Your task to perform on an android device: Open Google Maps and go to "Timeline" Image 0: 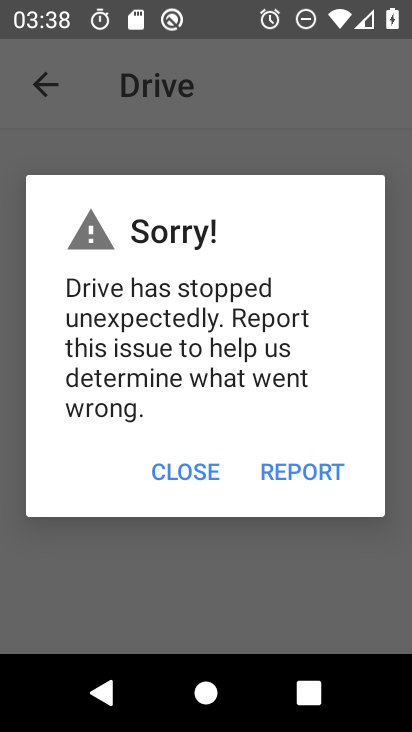
Step 0: press home button
Your task to perform on an android device: Open Google Maps and go to "Timeline" Image 1: 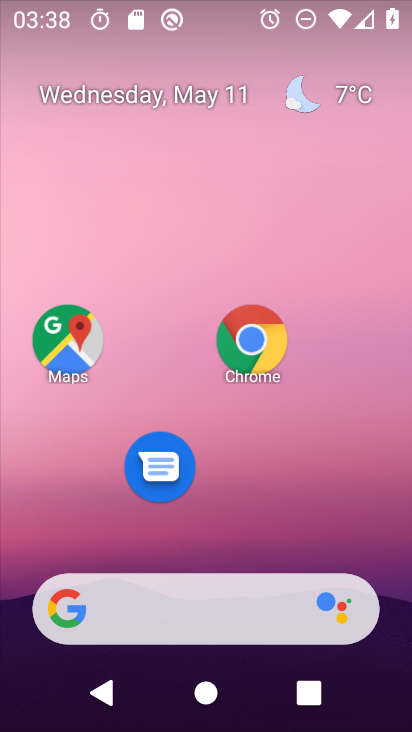
Step 1: click (60, 353)
Your task to perform on an android device: Open Google Maps and go to "Timeline" Image 2: 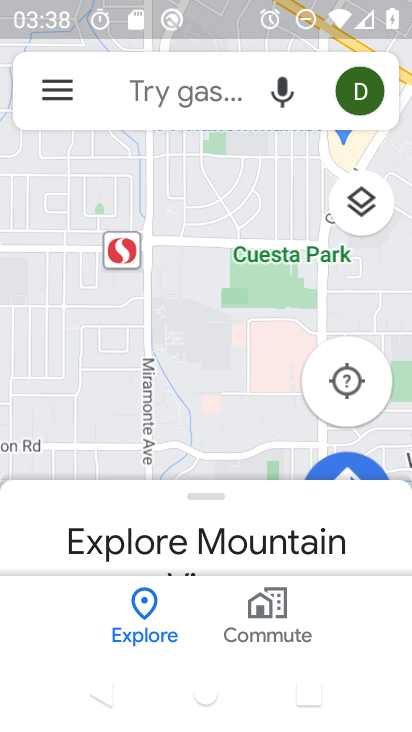
Step 2: click (57, 89)
Your task to perform on an android device: Open Google Maps and go to "Timeline" Image 3: 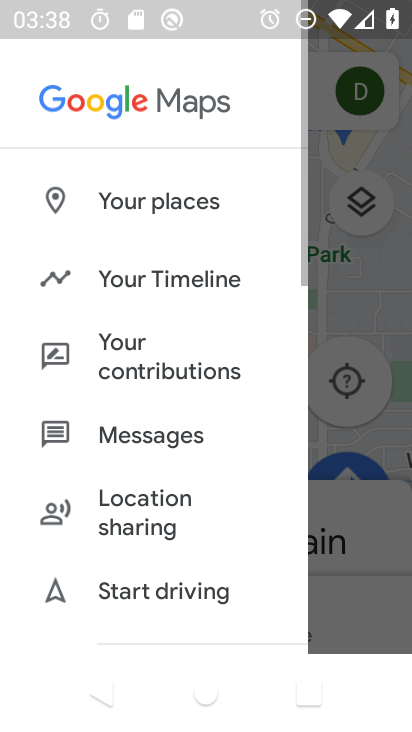
Step 3: click (131, 283)
Your task to perform on an android device: Open Google Maps and go to "Timeline" Image 4: 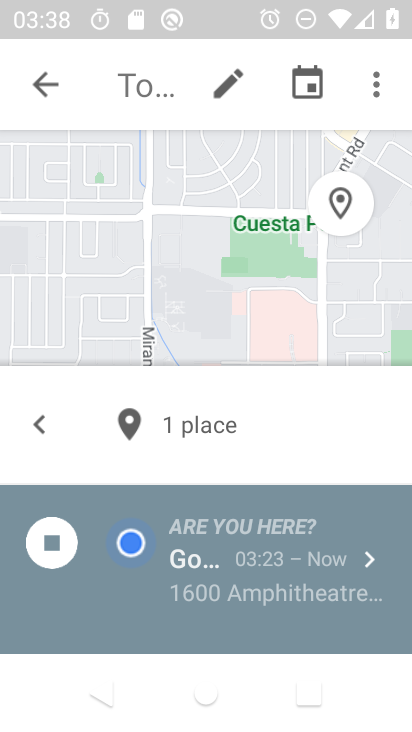
Step 4: task complete